Your task to perform on an android device: change timer sound Image 0: 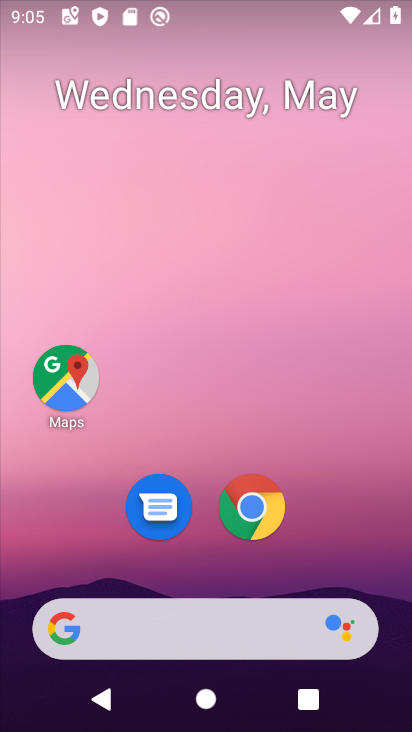
Step 0: drag from (397, 610) to (343, 64)
Your task to perform on an android device: change timer sound Image 1: 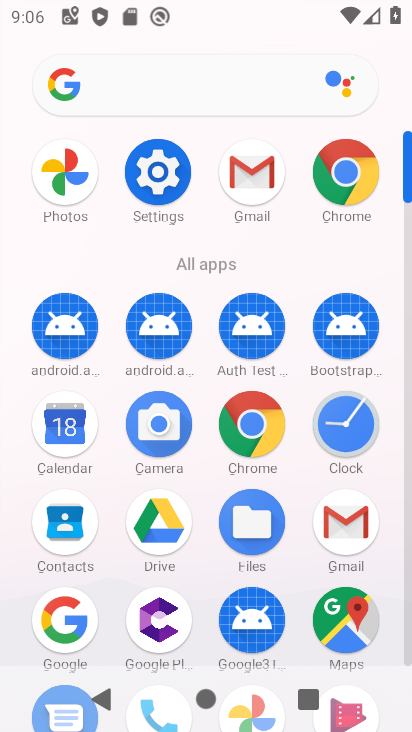
Step 1: click (331, 425)
Your task to perform on an android device: change timer sound Image 2: 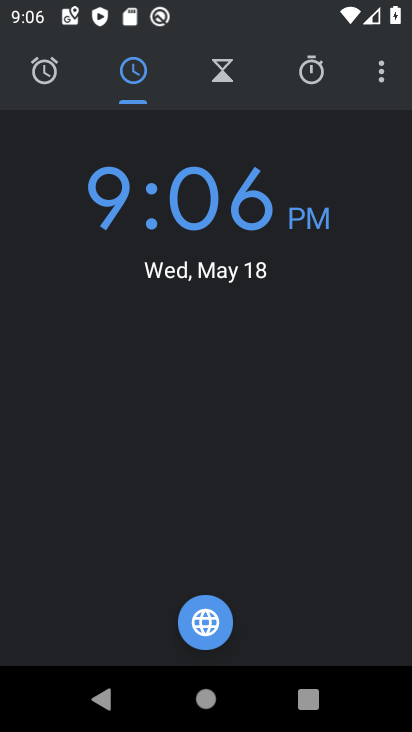
Step 2: click (236, 79)
Your task to perform on an android device: change timer sound Image 3: 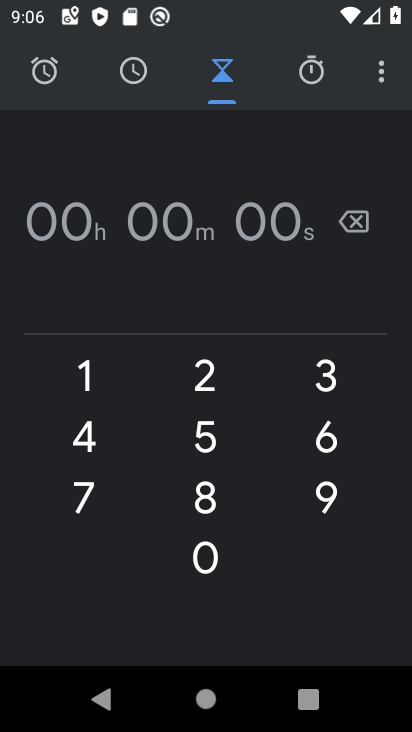
Step 3: type "100000"
Your task to perform on an android device: change timer sound Image 4: 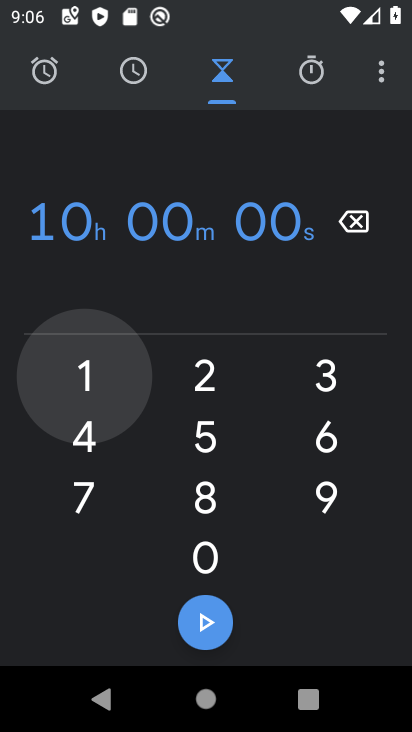
Step 4: click (218, 620)
Your task to perform on an android device: change timer sound Image 5: 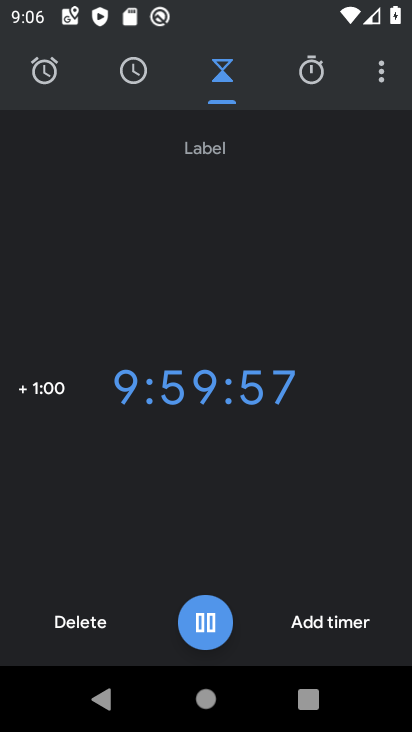
Step 5: task complete